Your task to perform on an android device: Search for seafood restaurants on Google Maps Image 0: 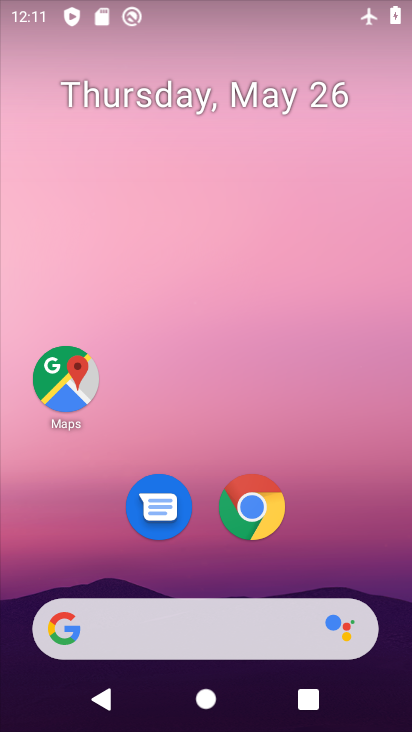
Step 0: click (59, 396)
Your task to perform on an android device: Search for seafood restaurants on Google Maps Image 1: 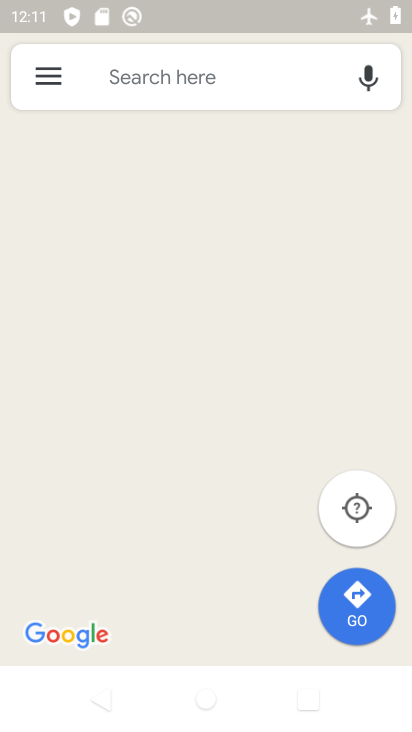
Step 1: click (265, 78)
Your task to perform on an android device: Search for seafood restaurants on Google Maps Image 2: 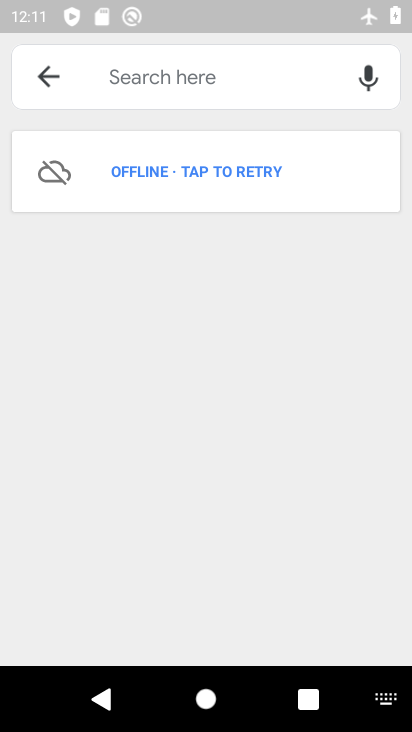
Step 2: type "seafood restaurants"
Your task to perform on an android device: Search for seafood restaurants on Google Maps Image 3: 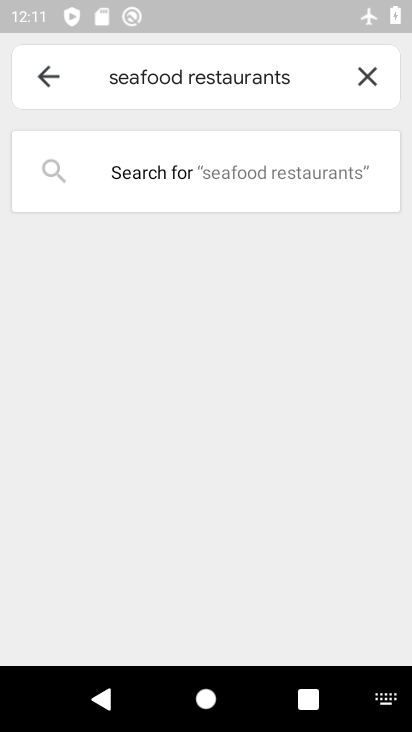
Step 3: task complete